Your task to perform on an android device: What's on my calendar today? Image 0: 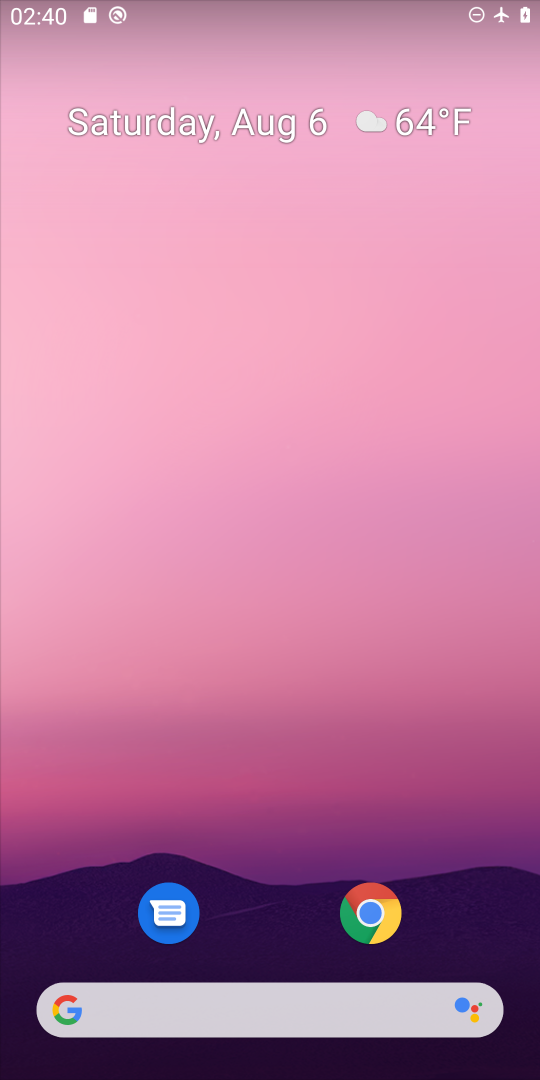
Step 0: press home button
Your task to perform on an android device: What's on my calendar today? Image 1: 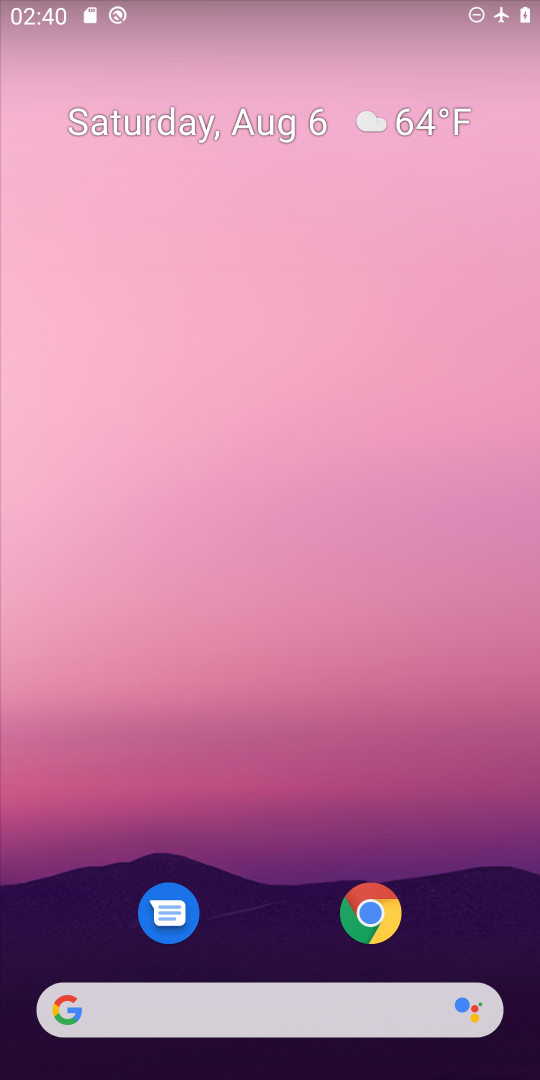
Step 1: drag from (454, 827) to (450, 249)
Your task to perform on an android device: What's on my calendar today? Image 2: 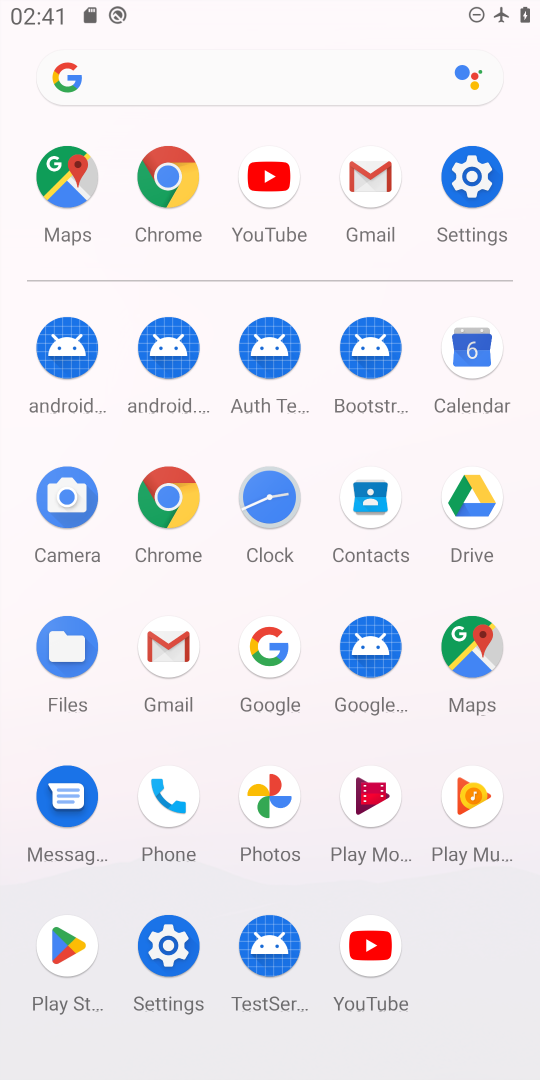
Step 2: click (477, 360)
Your task to perform on an android device: What's on my calendar today? Image 3: 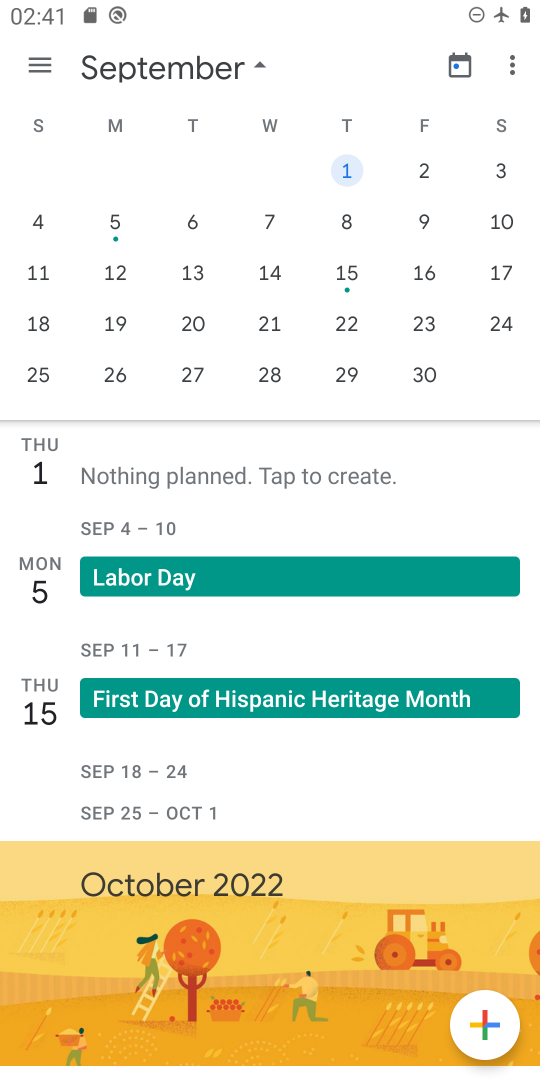
Step 3: task complete